Your task to perform on an android device: Go to sound settings Image 0: 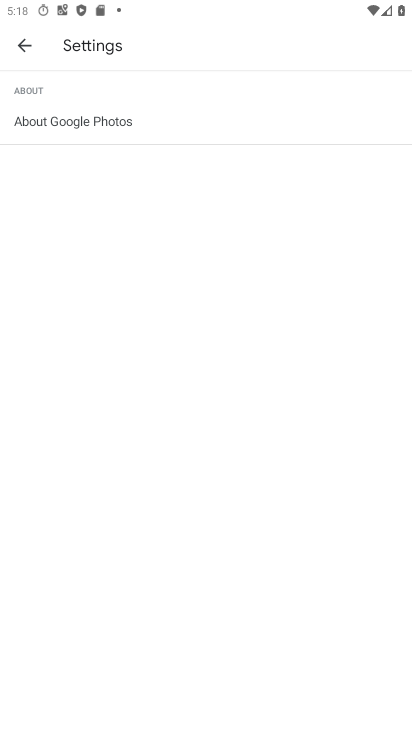
Step 0: press home button
Your task to perform on an android device: Go to sound settings Image 1: 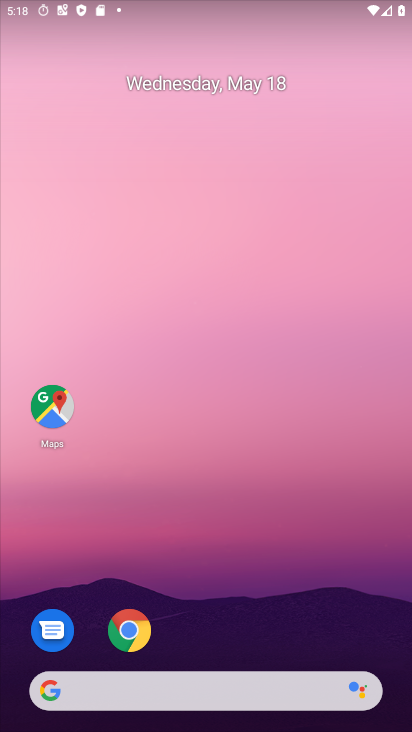
Step 1: drag from (206, 646) to (206, 371)
Your task to perform on an android device: Go to sound settings Image 2: 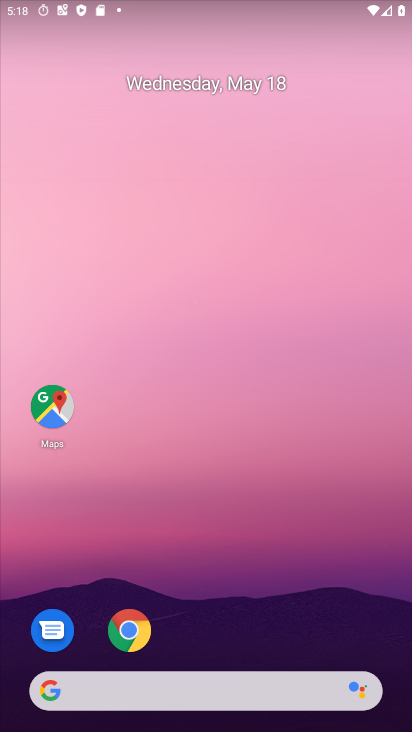
Step 2: drag from (238, 660) to (261, 239)
Your task to perform on an android device: Go to sound settings Image 3: 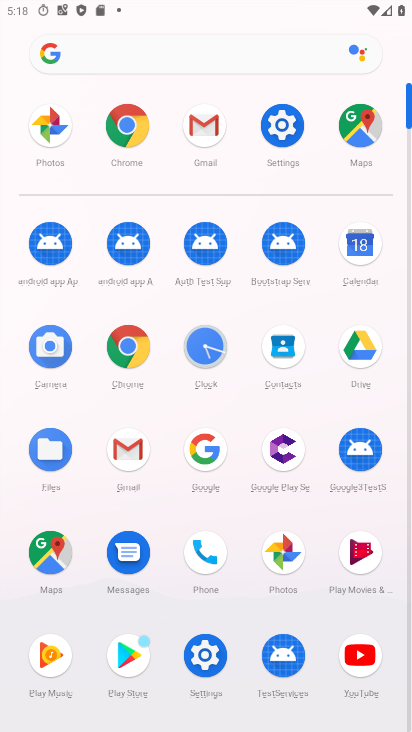
Step 3: click (296, 132)
Your task to perform on an android device: Go to sound settings Image 4: 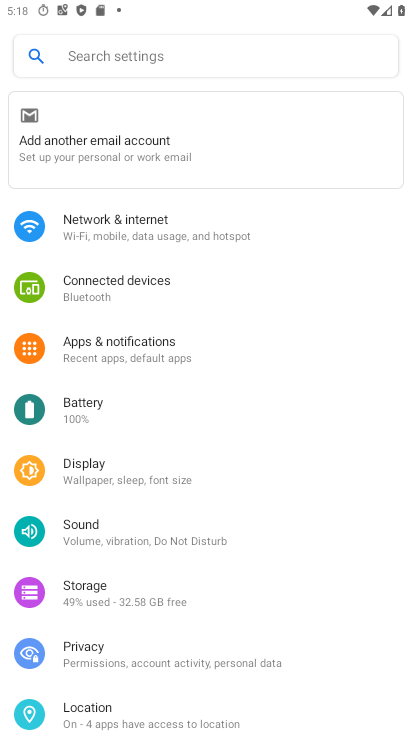
Step 4: click (113, 527)
Your task to perform on an android device: Go to sound settings Image 5: 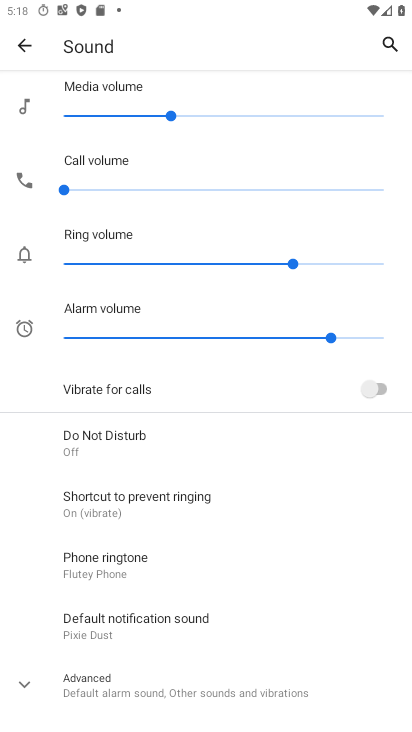
Step 5: click (135, 685)
Your task to perform on an android device: Go to sound settings Image 6: 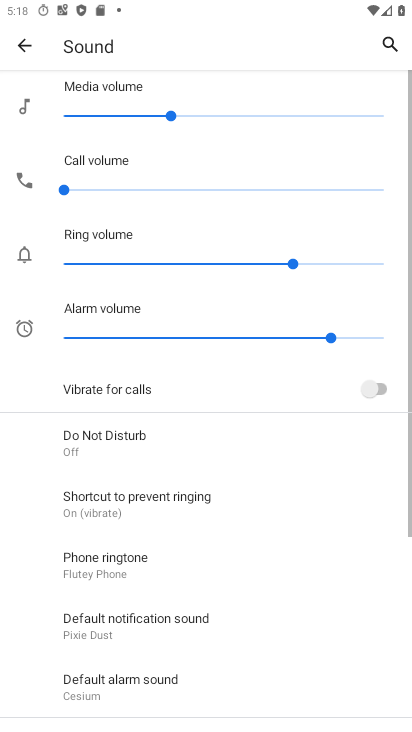
Step 6: task complete